Your task to perform on an android device: Go to Google Image 0: 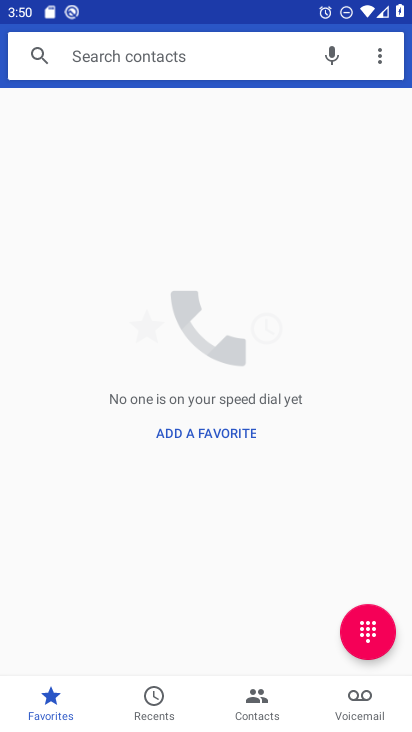
Step 0: press home button
Your task to perform on an android device: Go to Google Image 1: 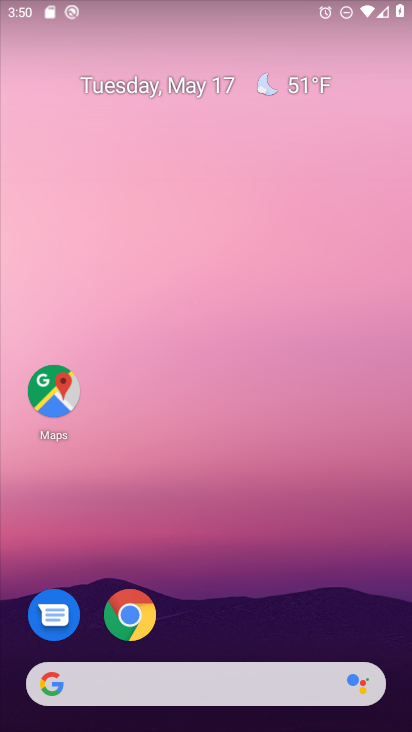
Step 1: drag from (216, 642) to (200, 201)
Your task to perform on an android device: Go to Google Image 2: 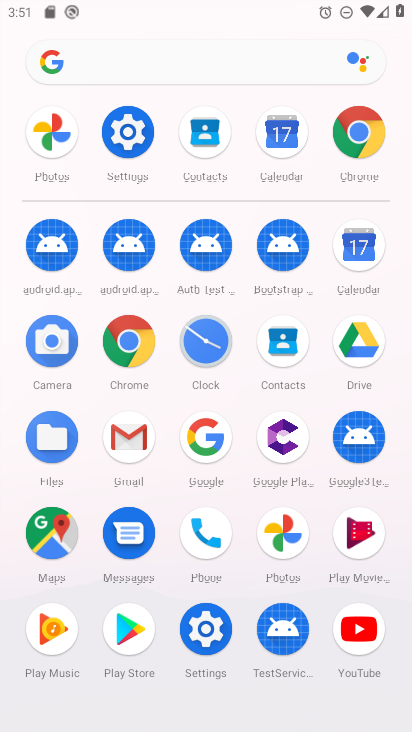
Step 2: click (207, 428)
Your task to perform on an android device: Go to Google Image 3: 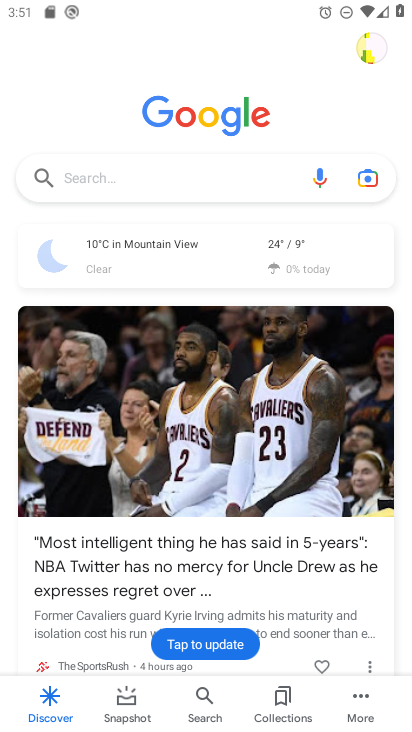
Step 3: task complete